Your task to perform on an android device: Open Wikipedia Image 0: 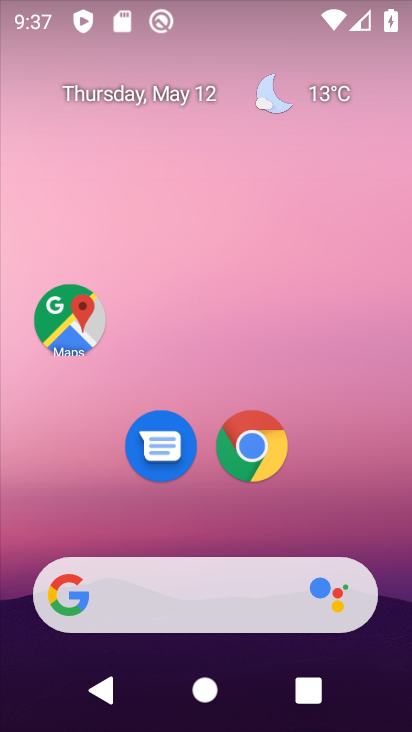
Step 0: drag from (249, 567) to (327, 112)
Your task to perform on an android device: Open Wikipedia Image 1: 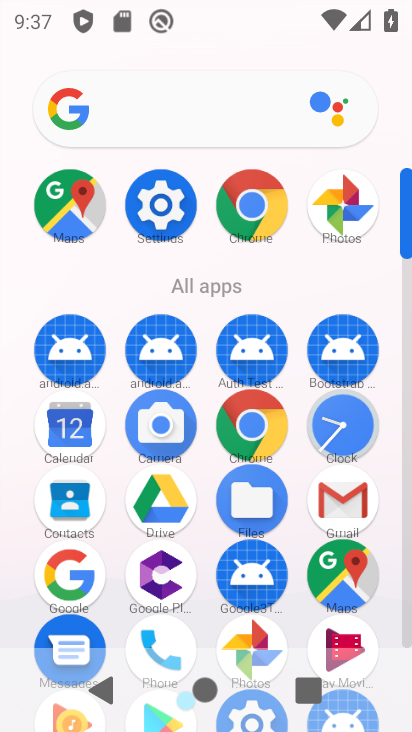
Step 1: click (253, 420)
Your task to perform on an android device: Open Wikipedia Image 2: 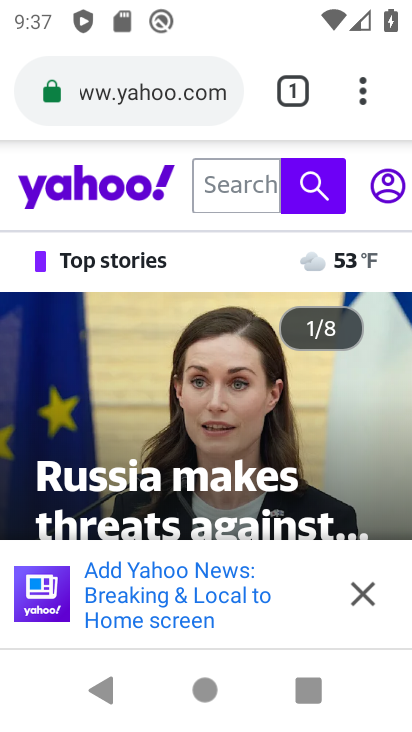
Step 2: click (150, 101)
Your task to perform on an android device: Open Wikipedia Image 3: 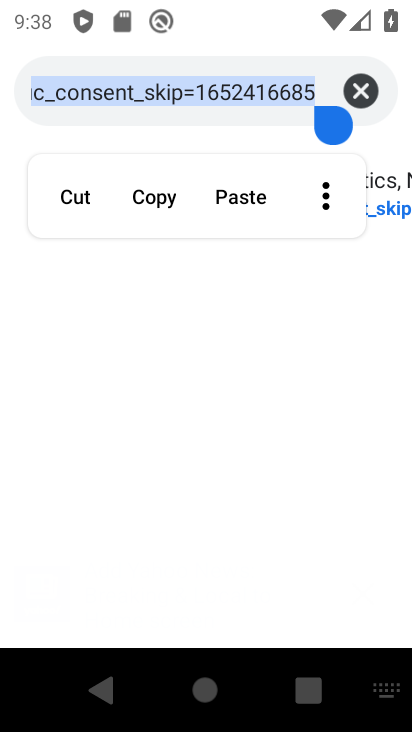
Step 3: click (349, 95)
Your task to perform on an android device: Open Wikipedia Image 4: 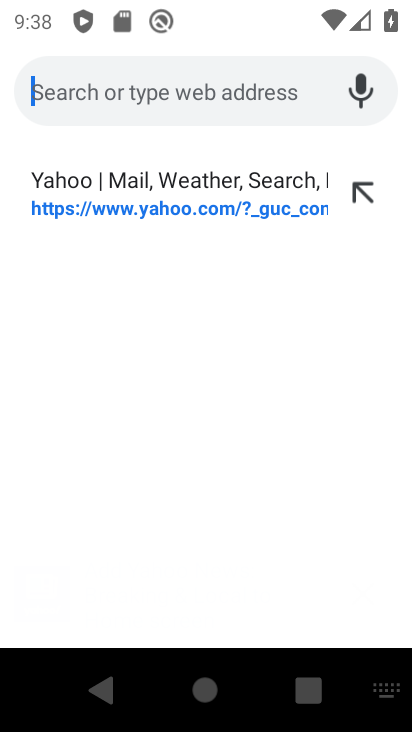
Step 4: type "wikipedia"
Your task to perform on an android device: Open Wikipedia Image 5: 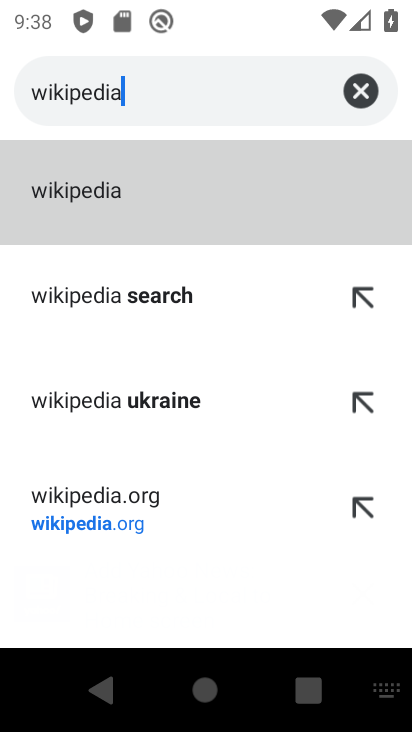
Step 5: click (227, 223)
Your task to perform on an android device: Open Wikipedia Image 6: 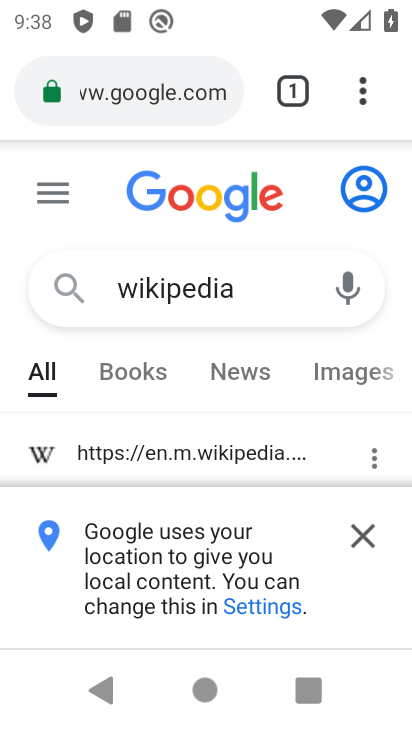
Step 6: task complete